Your task to perform on an android device: turn on notifications settings in the gmail app Image 0: 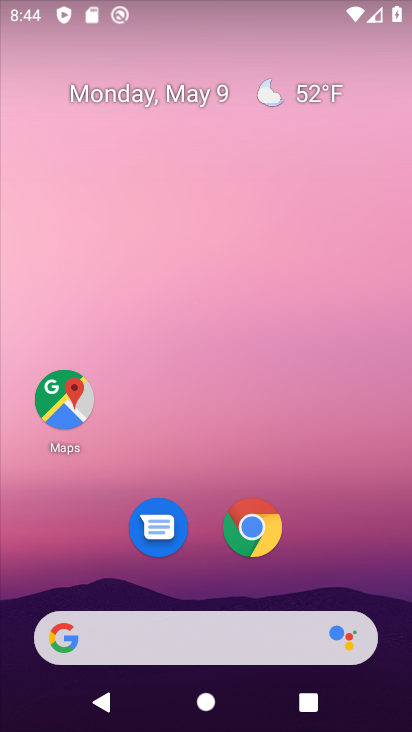
Step 0: drag from (367, 535) to (358, 148)
Your task to perform on an android device: turn on notifications settings in the gmail app Image 1: 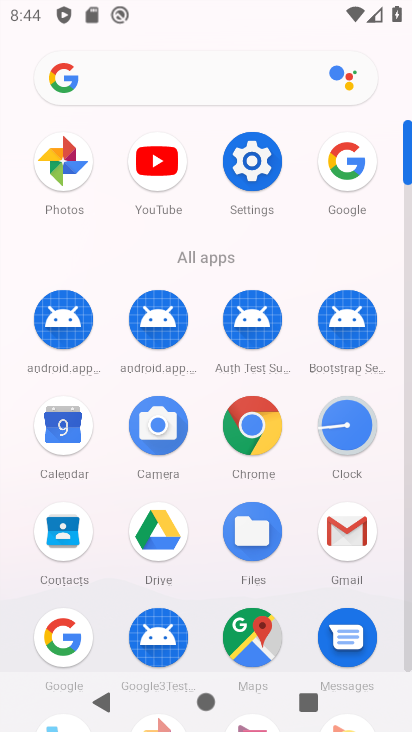
Step 1: click (342, 544)
Your task to perform on an android device: turn on notifications settings in the gmail app Image 2: 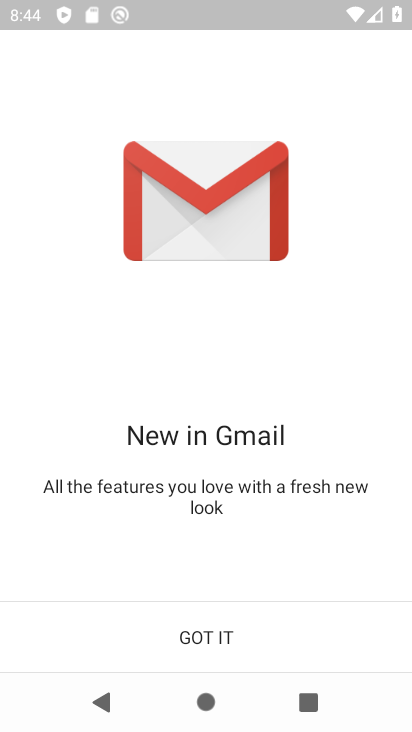
Step 2: click (180, 624)
Your task to perform on an android device: turn on notifications settings in the gmail app Image 3: 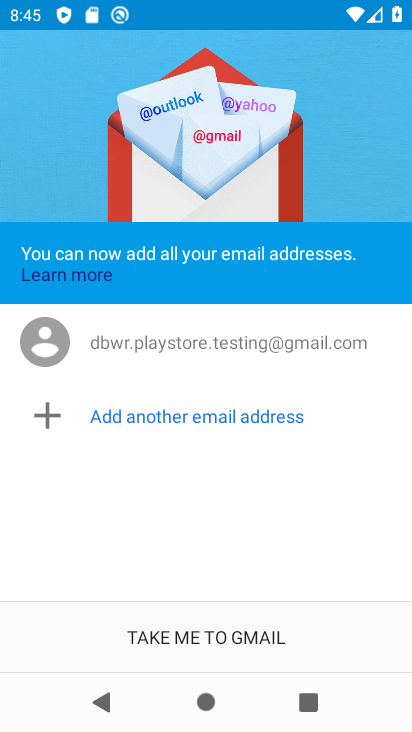
Step 3: click (239, 633)
Your task to perform on an android device: turn on notifications settings in the gmail app Image 4: 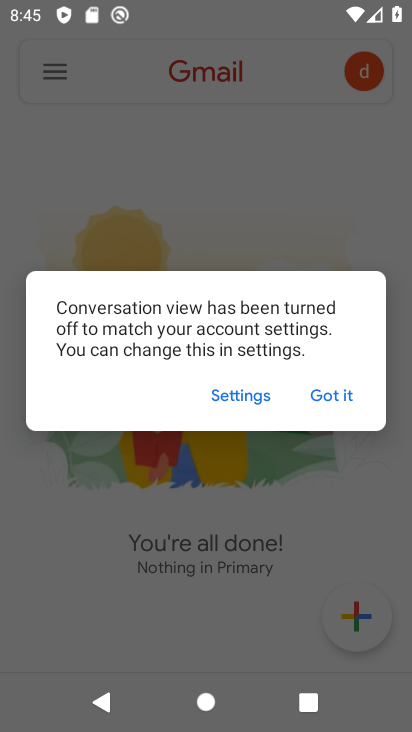
Step 4: click (323, 399)
Your task to perform on an android device: turn on notifications settings in the gmail app Image 5: 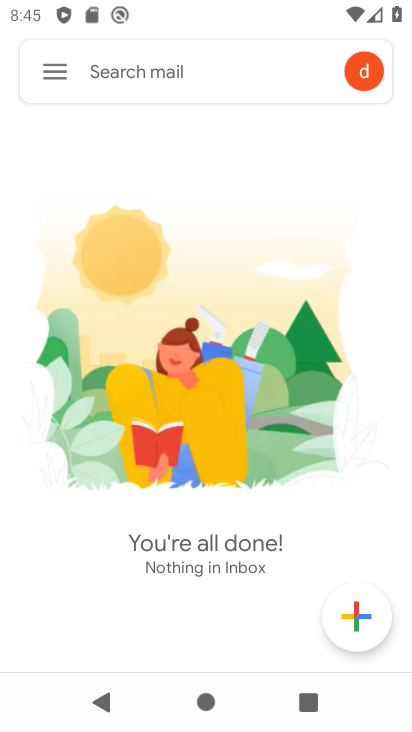
Step 5: click (70, 71)
Your task to perform on an android device: turn on notifications settings in the gmail app Image 6: 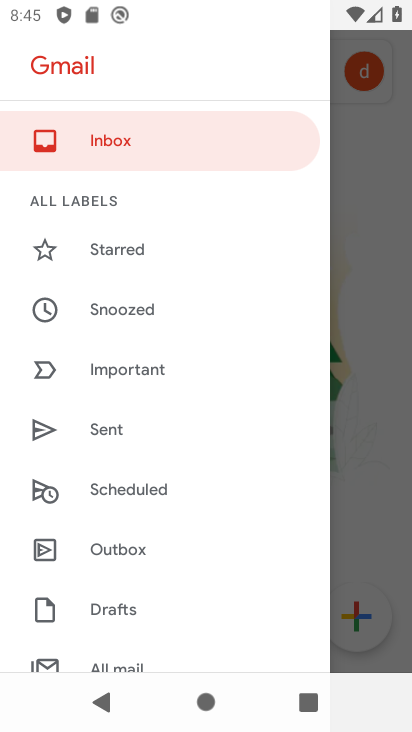
Step 6: drag from (173, 614) to (193, 216)
Your task to perform on an android device: turn on notifications settings in the gmail app Image 7: 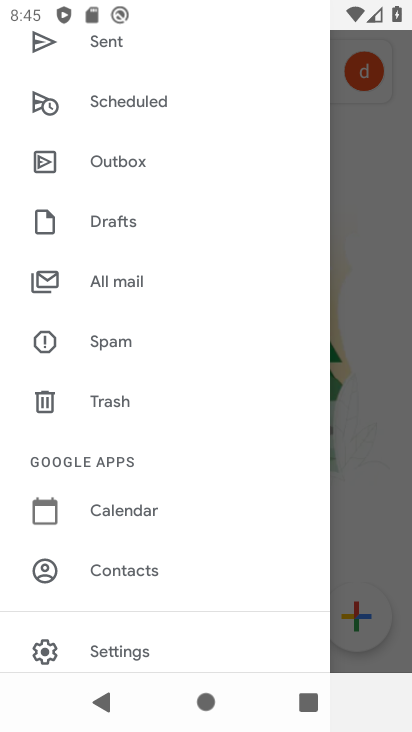
Step 7: click (138, 663)
Your task to perform on an android device: turn on notifications settings in the gmail app Image 8: 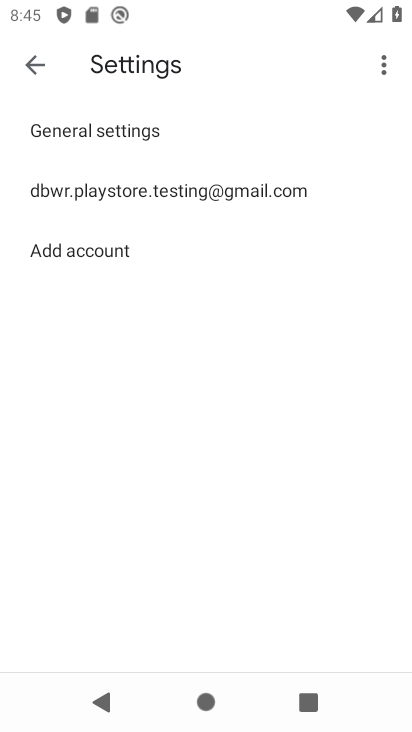
Step 8: click (204, 182)
Your task to perform on an android device: turn on notifications settings in the gmail app Image 9: 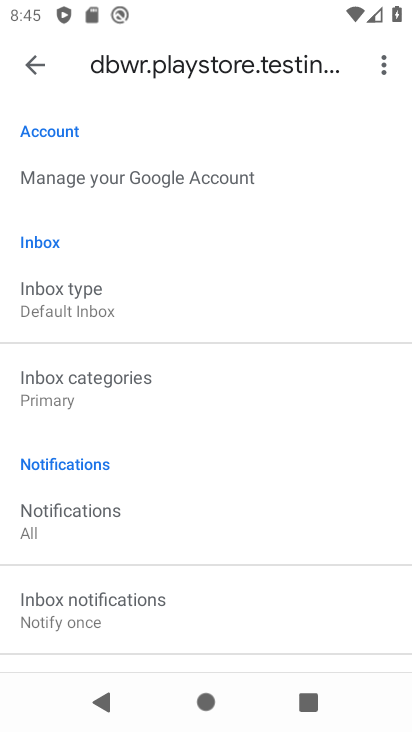
Step 9: click (87, 532)
Your task to perform on an android device: turn on notifications settings in the gmail app Image 10: 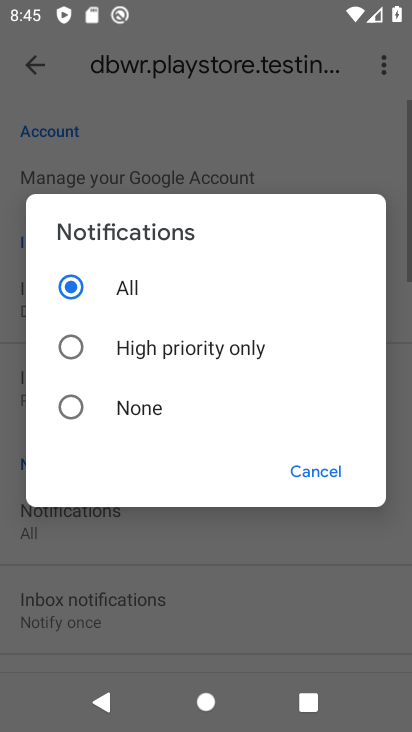
Step 10: task complete